Your task to perform on an android device: turn on notifications settings in the gmail app Image 0: 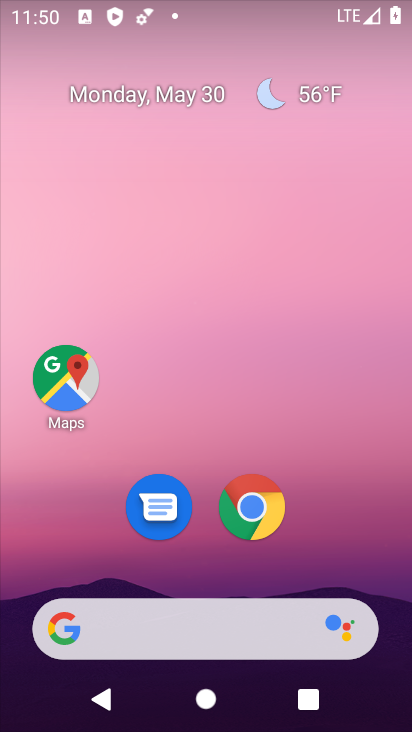
Step 0: drag from (397, 630) to (246, 4)
Your task to perform on an android device: turn on notifications settings in the gmail app Image 1: 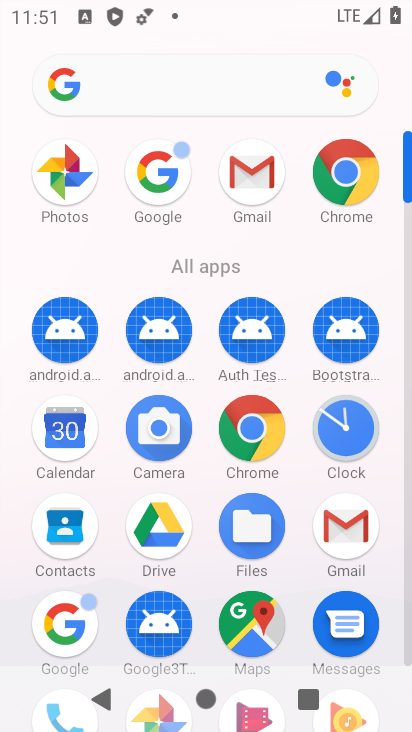
Step 1: click (340, 546)
Your task to perform on an android device: turn on notifications settings in the gmail app Image 2: 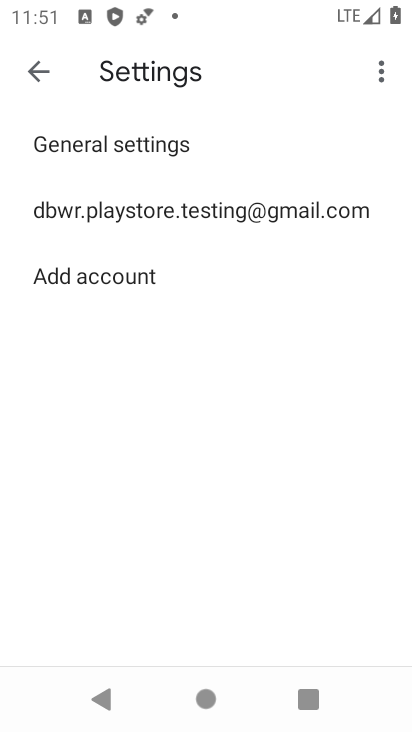
Step 2: click (138, 213)
Your task to perform on an android device: turn on notifications settings in the gmail app Image 3: 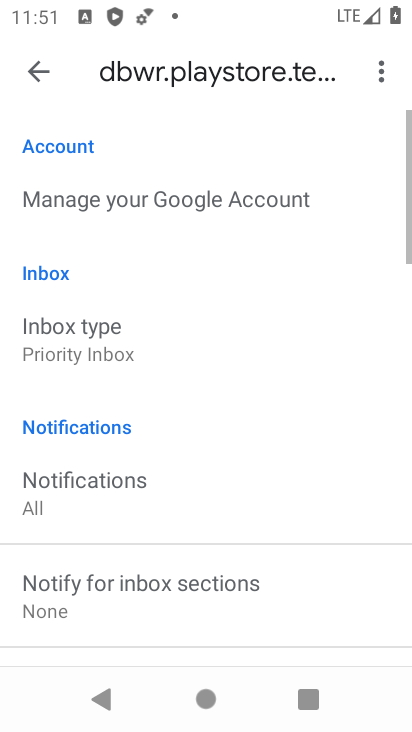
Step 3: click (135, 500)
Your task to perform on an android device: turn on notifications settings in the gmail app Image 4: 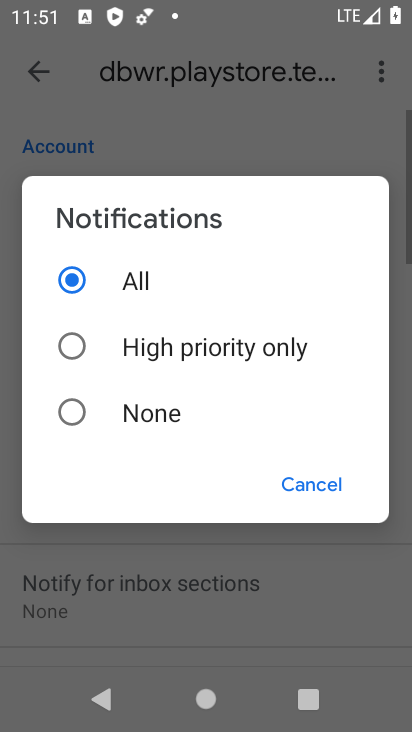
Step 4: click (151, 291)
Your task to perform on an android device: turn on notifications settings in the gmail app Image 5: 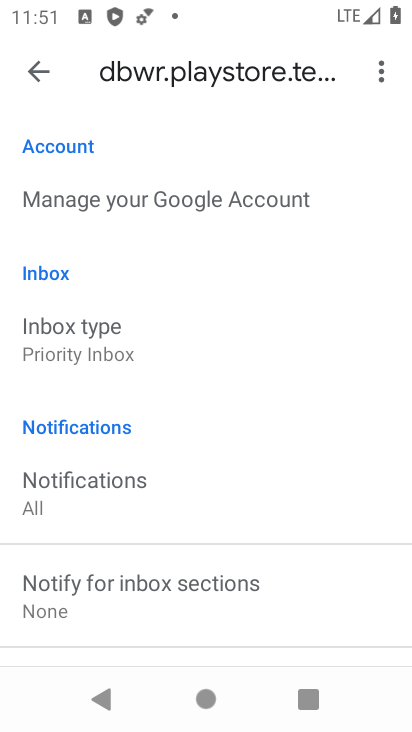
Step 5: task complete